Your task to perform on an android device: Check the weather Image 0: 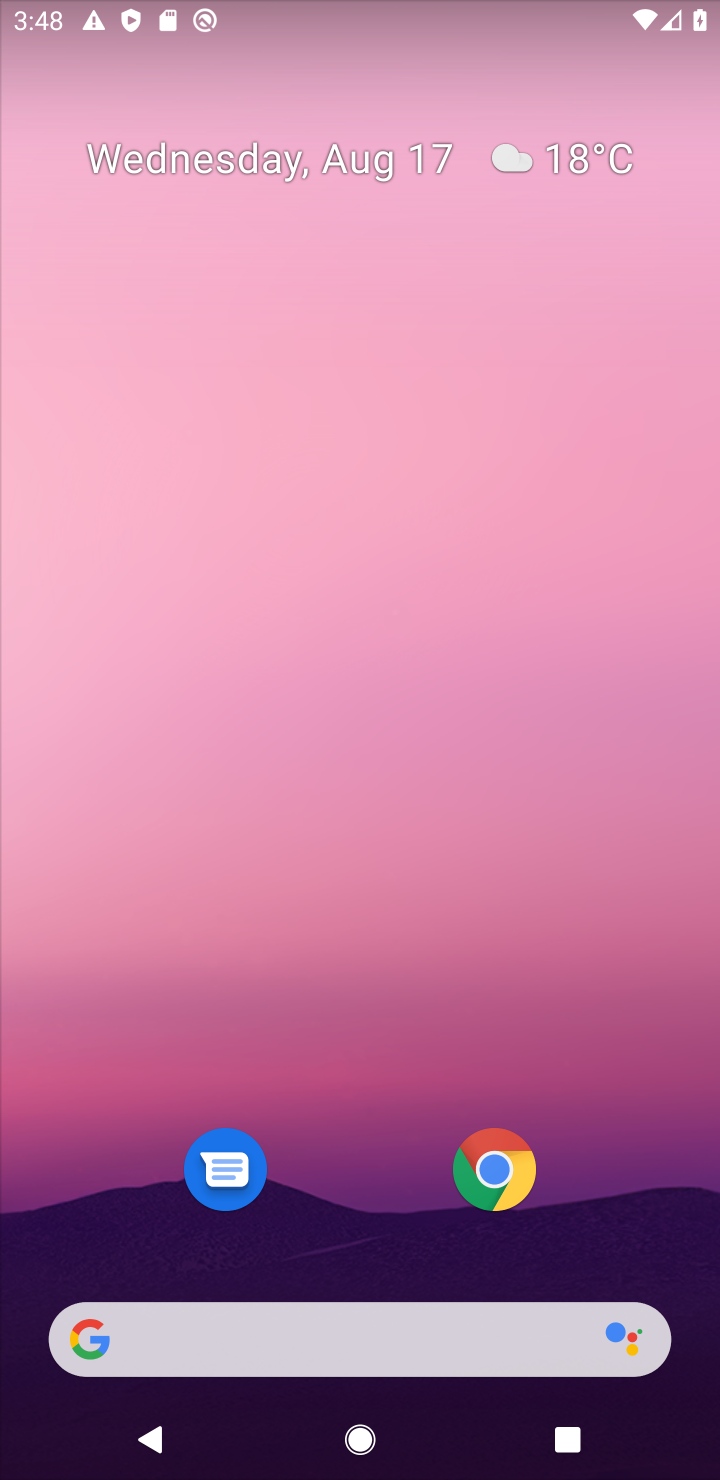
Step 0: click (512, 1173)
Your task to perform on an android device: Check the weather Image 1: 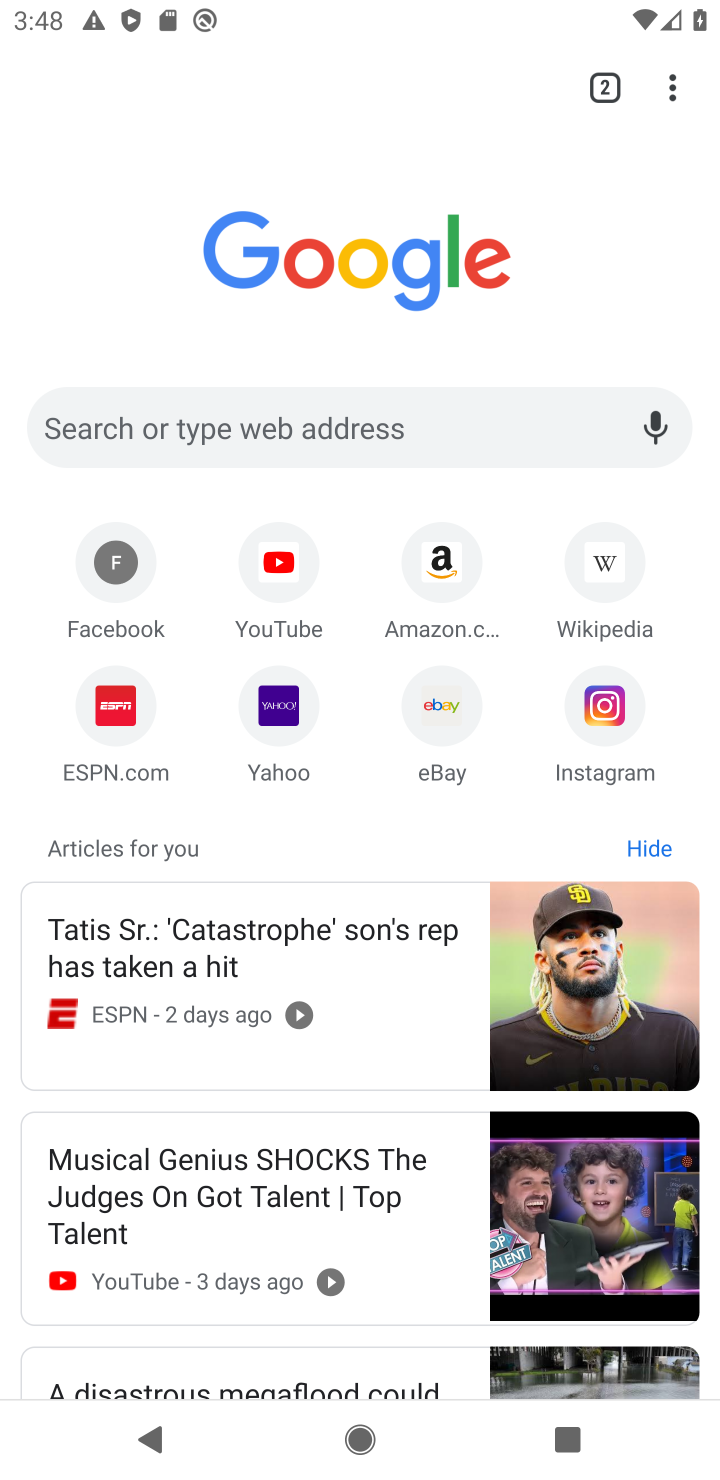
Step 1: click (153, 420)
Your task to perform on an android device: Check the weather Image 2: 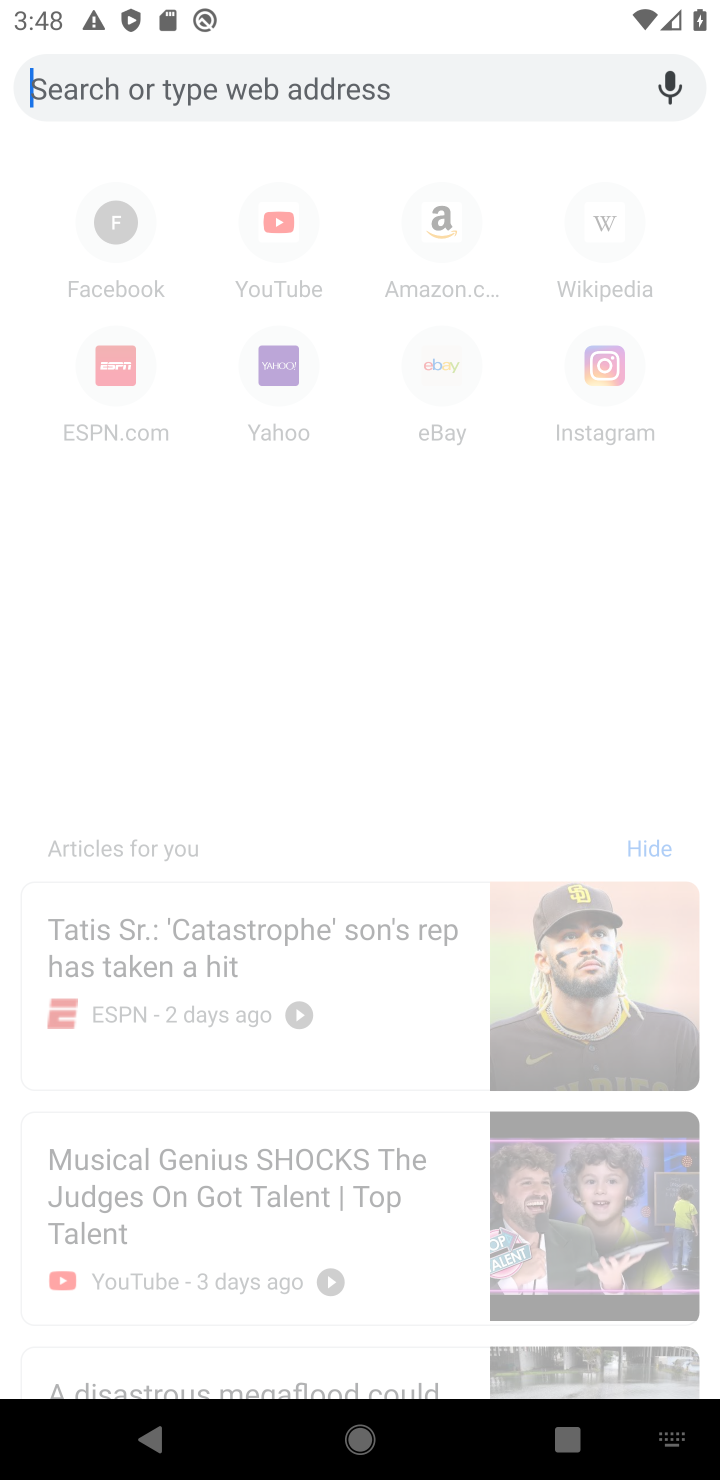
Step 2: type "Check the weather"
Your task to perform on an android device: Check the weather Image 3: 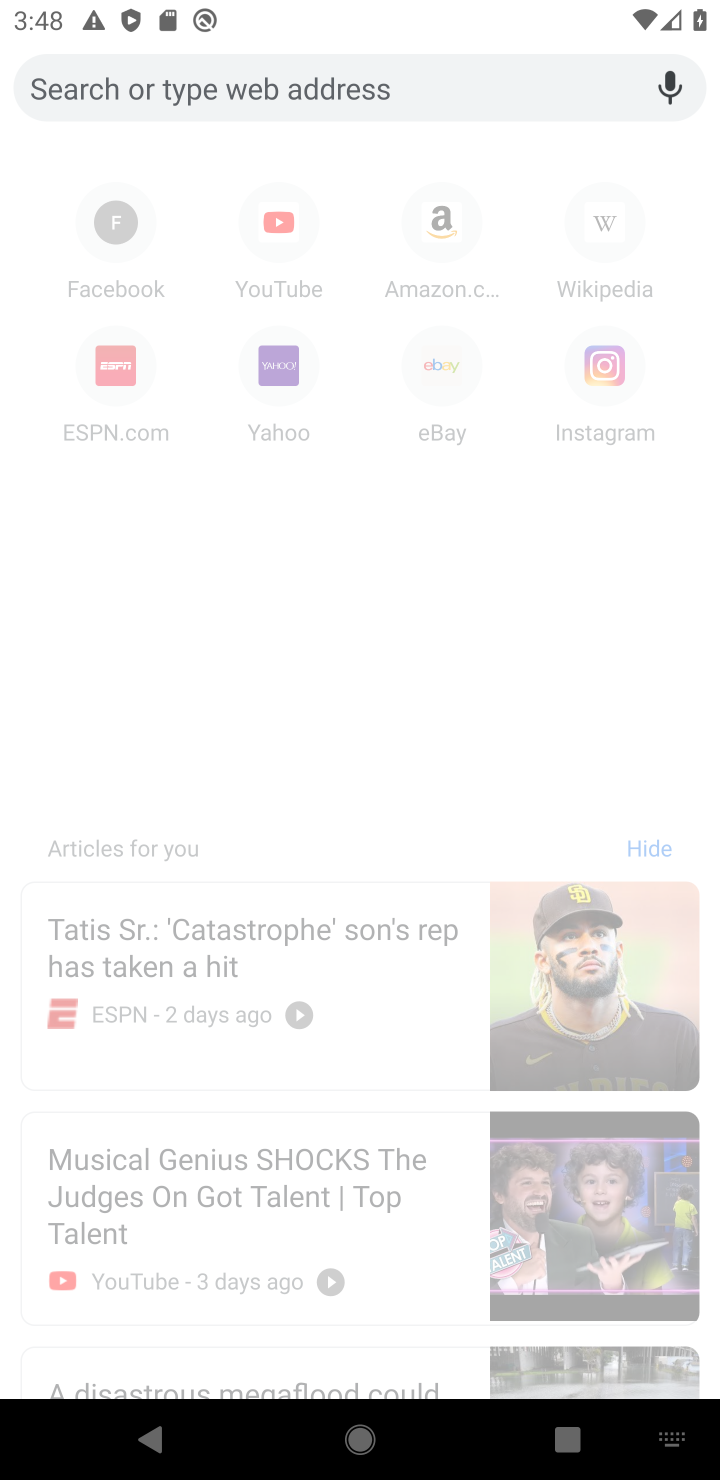
Step 3: click (225, 88)
Your task to perform on an android device: Check the weather Image 4: 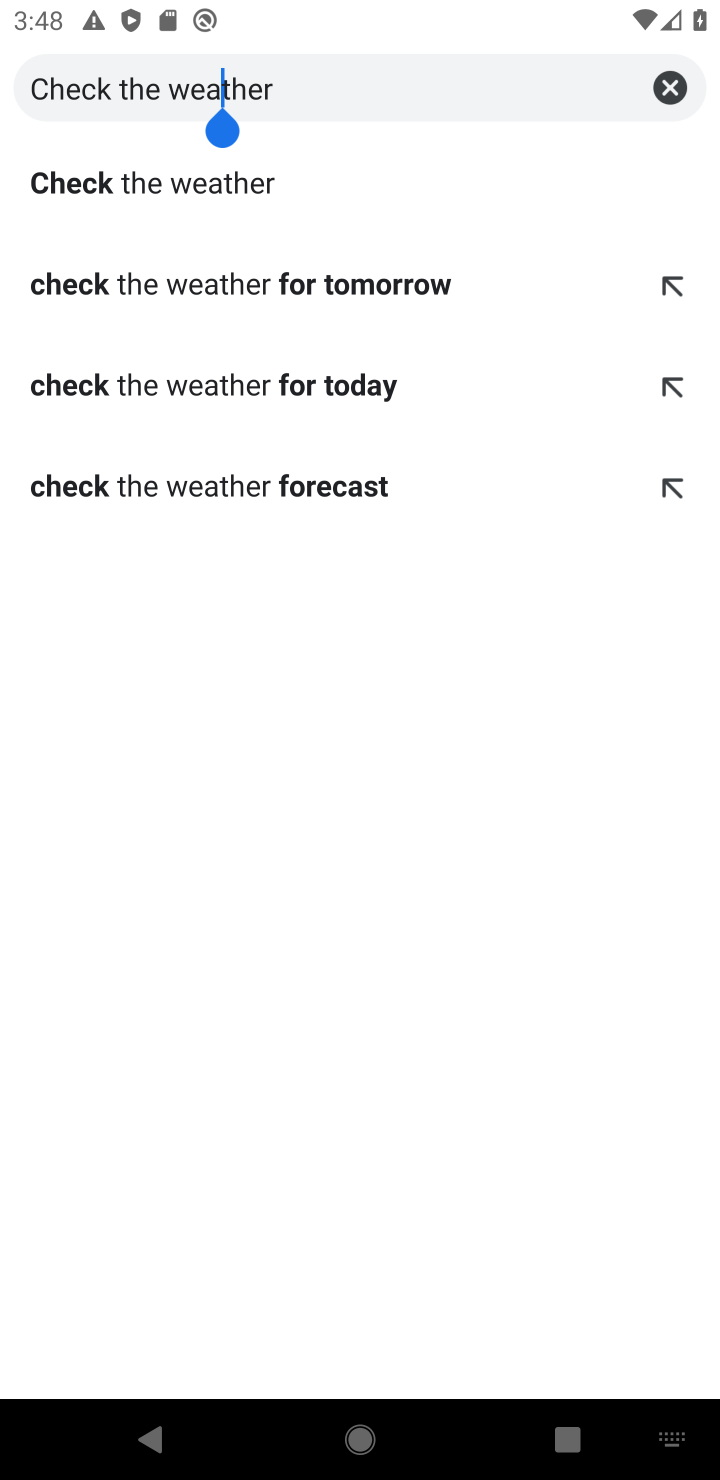
Step 4: click (103, 180)
Your task to perform on an android device: Check the weather Image 5: 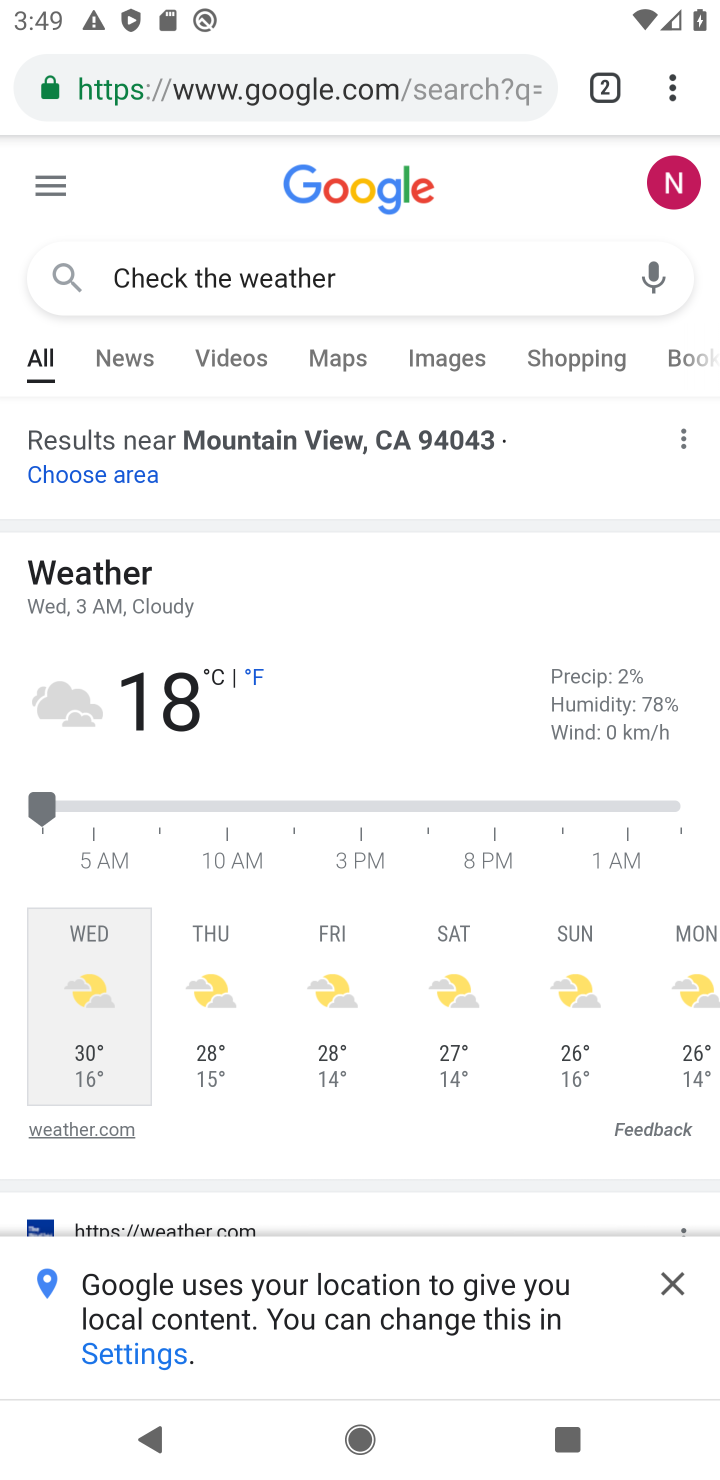
Step 5: task complete